Your task to perform on an android device: see creations saved in the google photos Image 0: 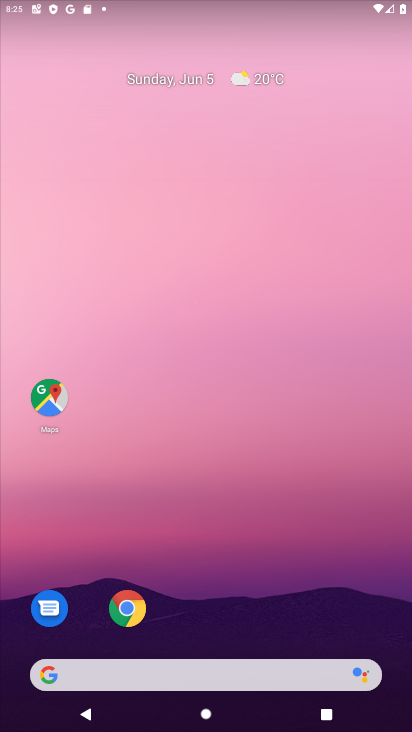
Step 0: press home button
Your task to perform on an android device: see creations saved in the google photos Image 1: 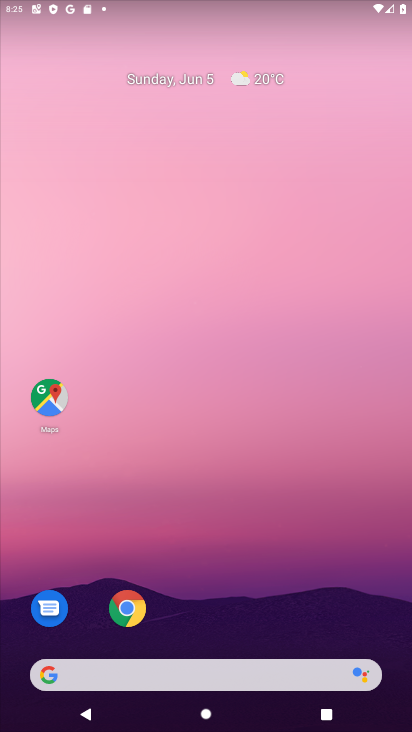
Step 1: drag from (71, 704) to (303, 186)
Your task to perform on an android device: see creations saved in the google photos Image 2: 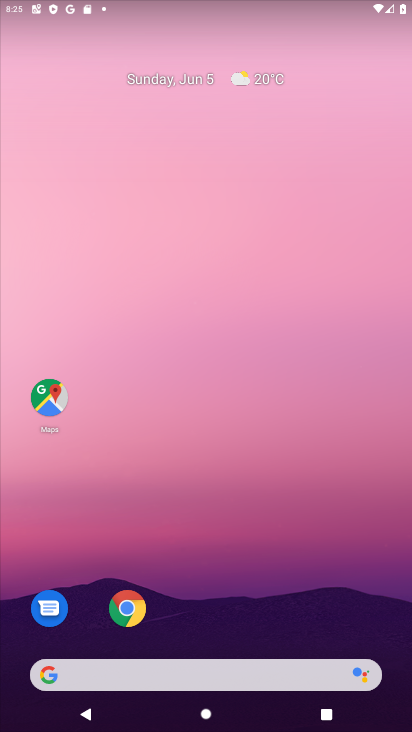
Step 2: drag from (66, 606) to (341, 71)
Your task to perform on an android device: see creations saved in the google photos Image 3: 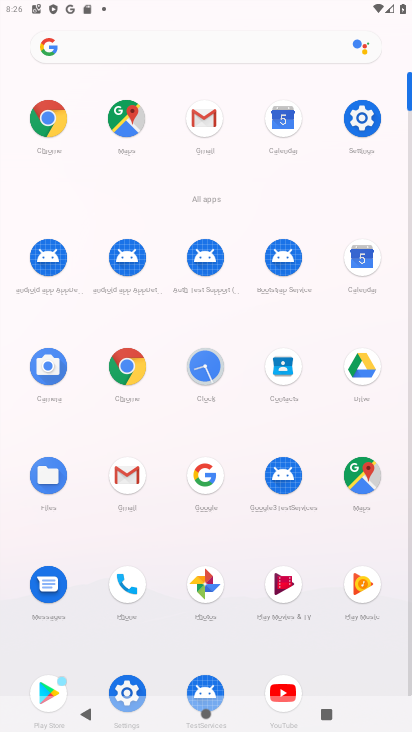
Step 3: click (198, 586)
Your task to perform on an android device: see creations saved in the google photos Image 4: 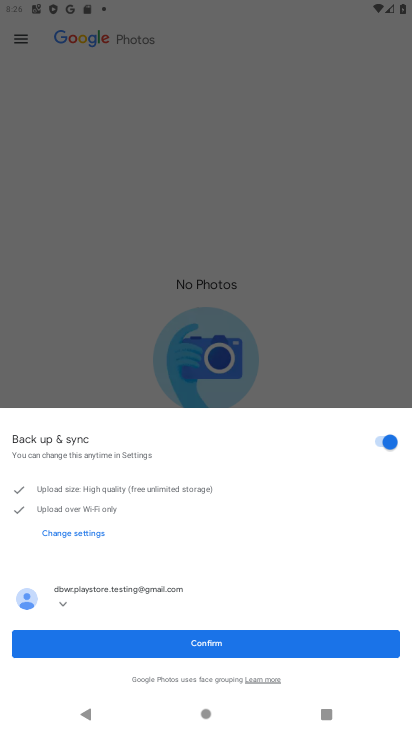
Step 4: click (216, 645)
Your task to perform on an android device: see creations saved in the google photos Image 5: 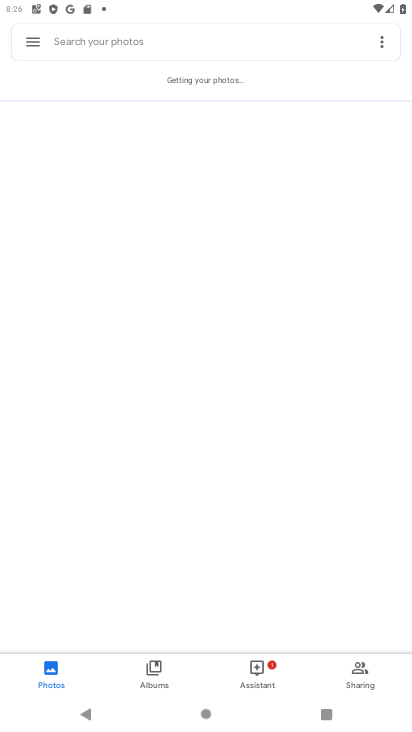
Step 5: click (231, 34)
Your task to perform on an android device: see creations saved in the google photos Image 6: 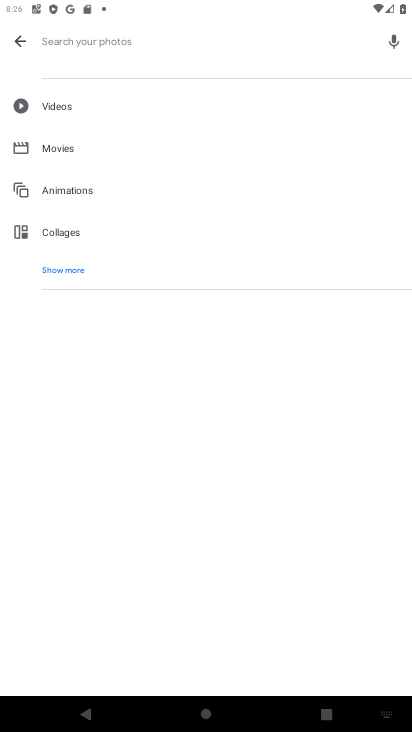
Step 6: click (71, 272)
Your task to perform on an android device: see creations saved in the google photos Image 7: 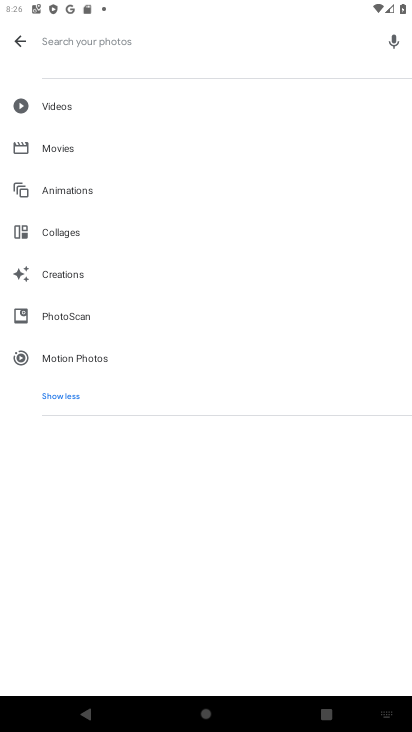
Step 7: click (63, 273)
Your task to perform on an android device: see creations saved in the google photos Image 8: 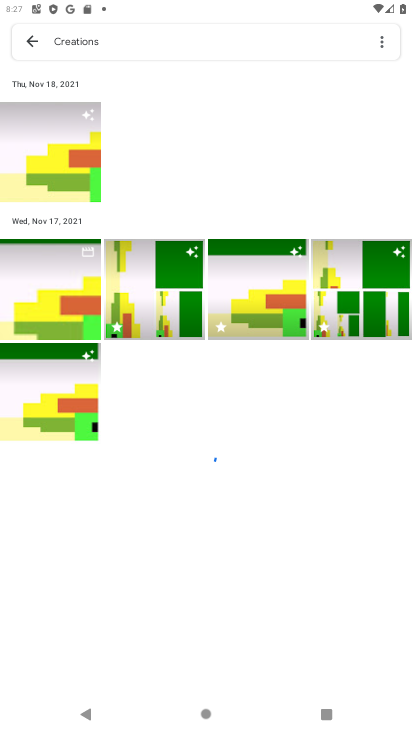
Step 8: task complete